Your task to perform on an android device: Show me popular videos on Youtube Image 0: 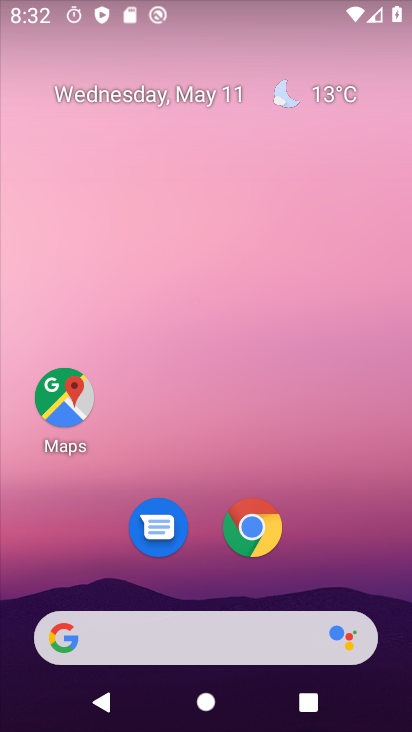
Step 0: drag from (190, 572) to (239, 131)
Your task to perform on an android device: Show me popular videos on Youtube Image 1: 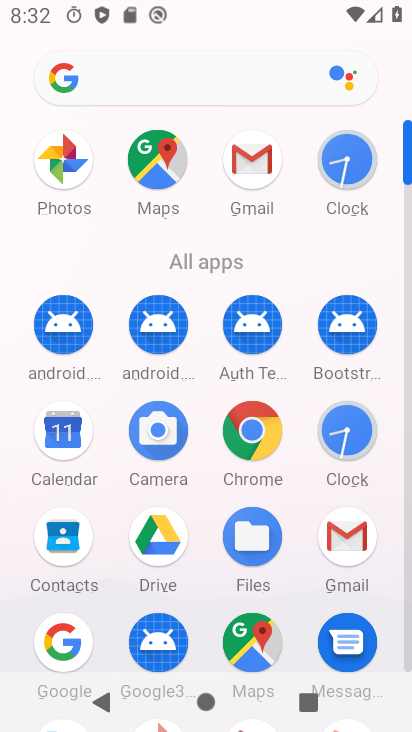
Step 1: drag from (207, 583) to (283, 66)
Your task to perform on an android device: Show me popular videos on Youtube Image 2: 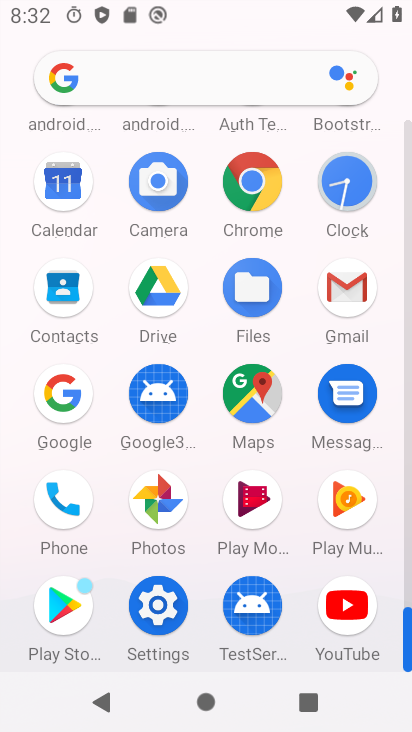
Step 2: click (346, 618)
Your task to perform on an android device: Show me popular videos on Youtube Image 3: 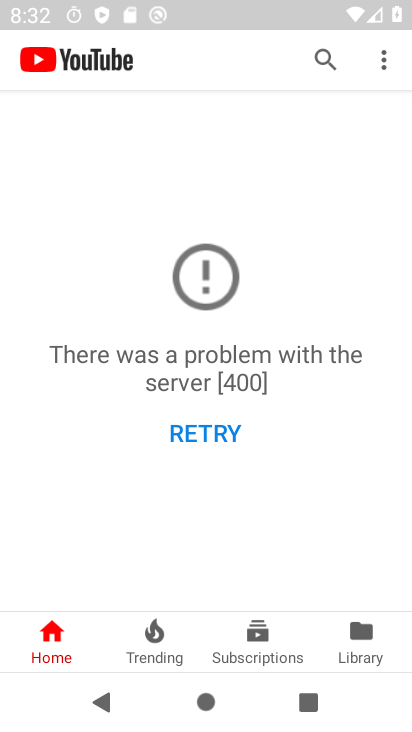
Step 3: click (317, 56)
Your task to perform on an android device: Show me popular videos on Youtube Image 4: 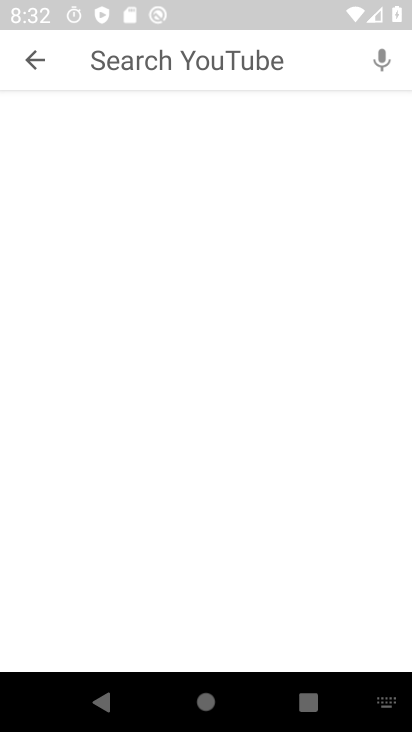
Step 4: task complete